Your task to perform on an android device: Open Youtube and go to the subscriptions tab Image 0: 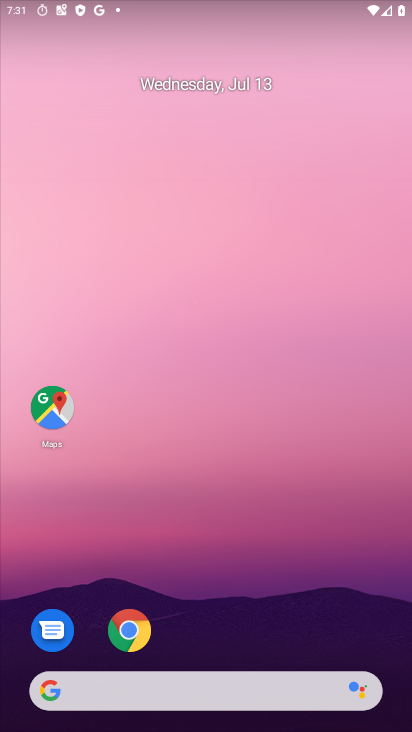
Step 0: drag from (368, 644) to (209, 30)
Your task to perform on an android device: Open Youtube and go to the subscriptions tab Image 1: 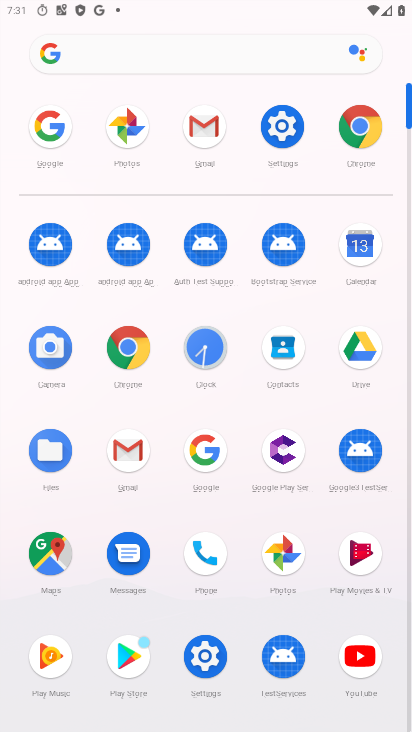
Step 1: click (355, 673)
Your task to perform on an android device: Open Youtube and go to the subscriptions tab Image 2: 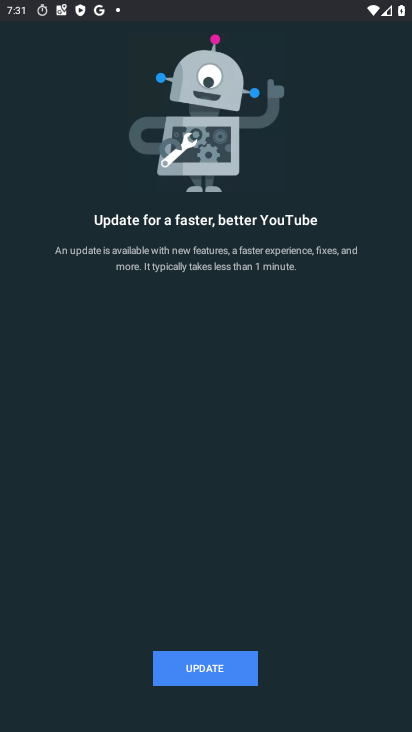
Step 2: click (208, 671)
Your task to perform on an android device: Open Youtube and go to the subscriptions tab Image 3: 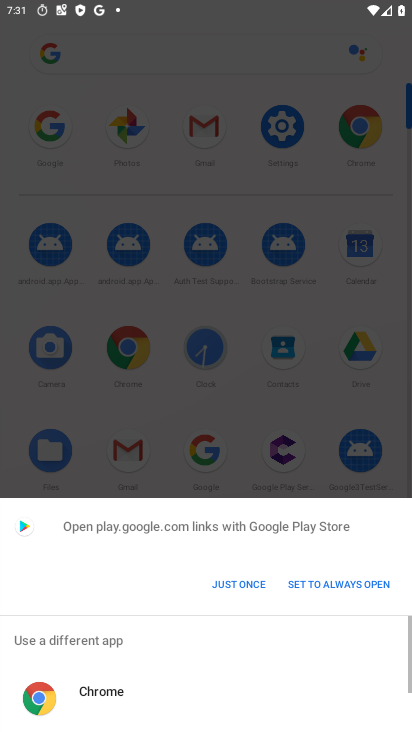
Step 3: click (250, 585)
Your task to perform on an android device: Open Youtube and go to the subscriptions tab Image 4: 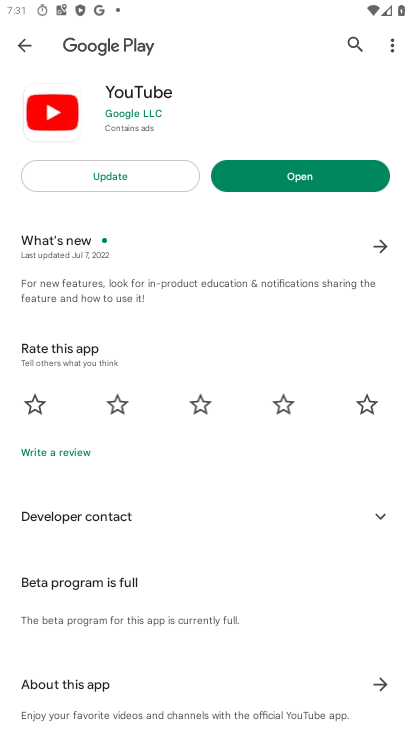
Step 4: click (115, 170)
Your task to perform on an android device: Open Youtube and go to the subscriptions tab Image 5: 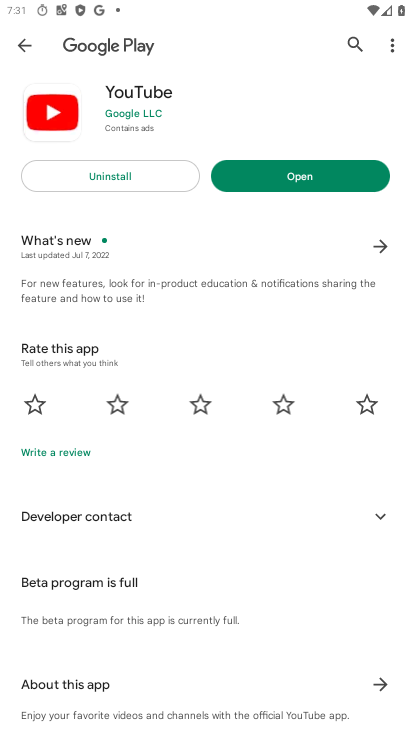
Step 5: click (291, 181)
Your task to perform on an android device: Open Youtube and go to the subscriptions tab Image 6: 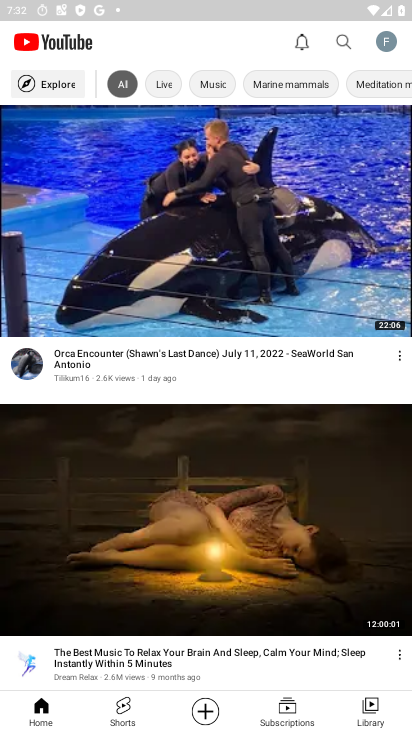
Step 6: click (291, 709)
Your task to perform on an android device: Open Youtube and go to the subscriptions tab Image 7: 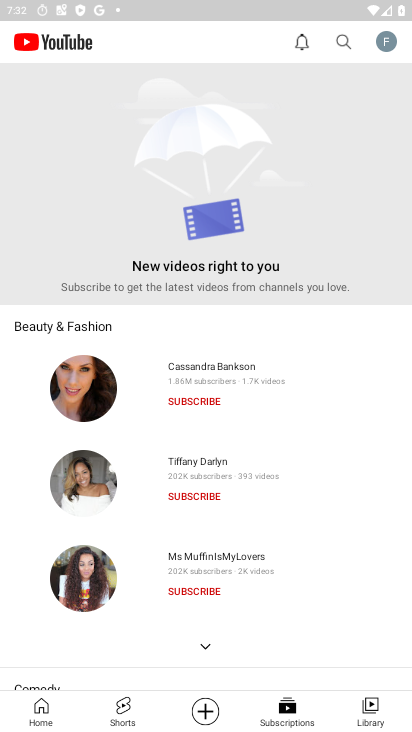
Step 7: task complete